Your task to perform on an android device: Open CNN.com Image 0: 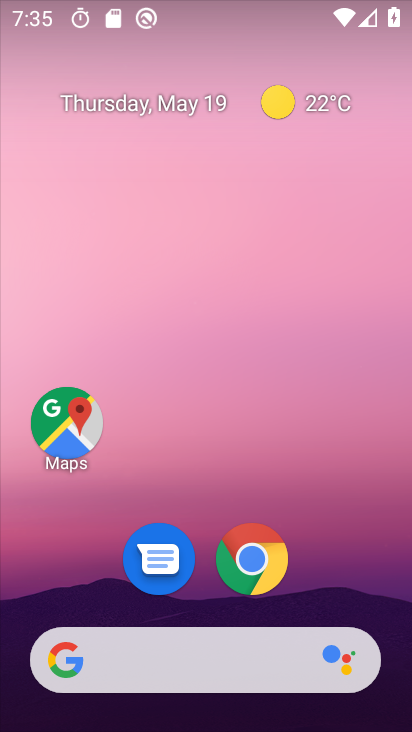
Step 0: click (245, 562)
Your task to perform on an android device: Open CNN.com Image 1: 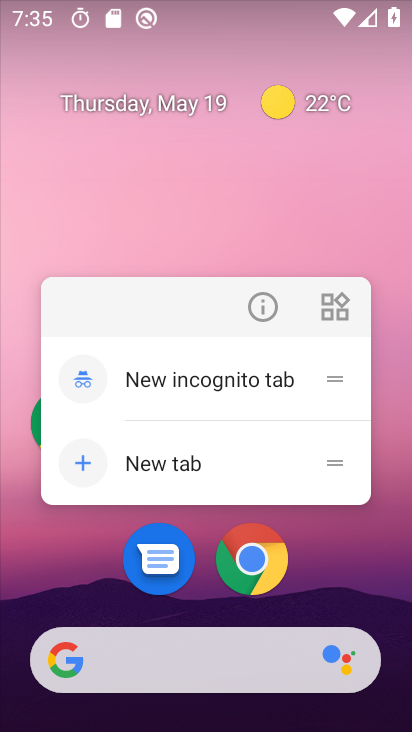
Step 1: click (280, 548)
Your task to perform on an android device: Open CNN.com Image 2: 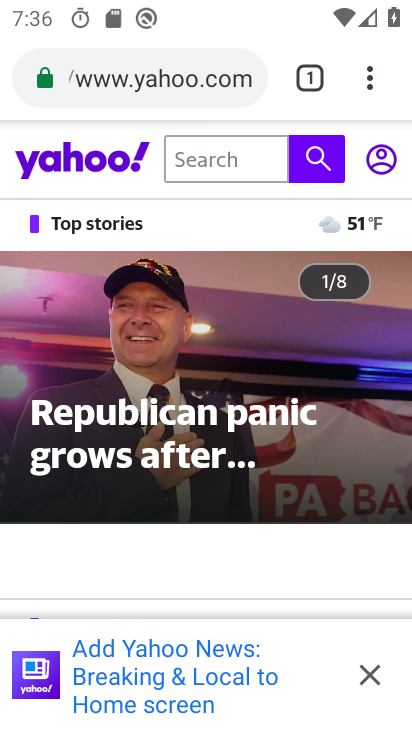
Step 2: click (99, 76)
Your task to perform on an android device: Open CNN.com Image 3: 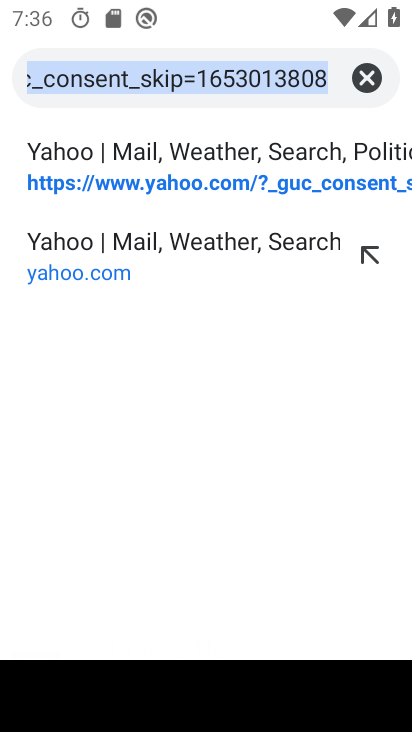
Step 3: type "CNN.com"
Your task to perform on an android device: Open CNN.com Image 4: 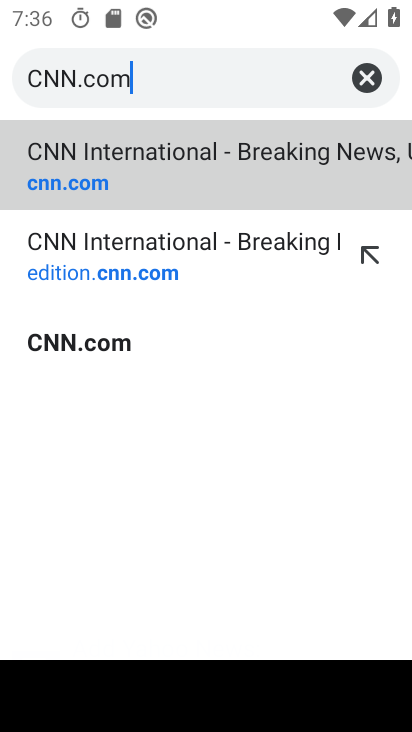
Step 4: click (191, 152)
Your task to perform on an android device: Open CNN.com Image 5: 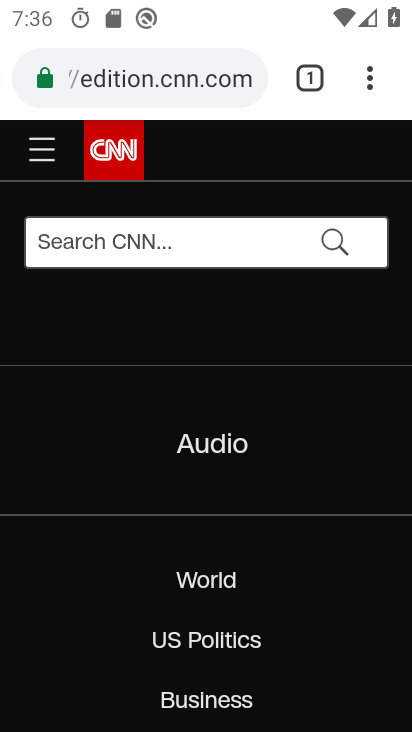
Step 5: task complete